Your task to perform on an android device: Search for Italian restaurants on Maps Image 0: 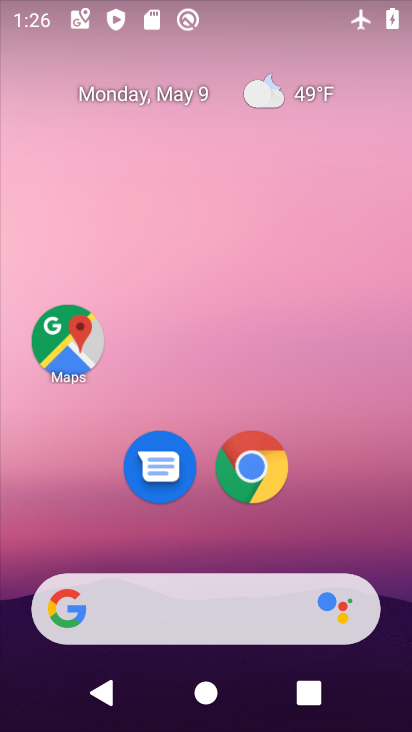
Step 0: drag from (375, 519) to (389, 113)
Your task to perform on an android device: Search for Italian restaurants on Maps Image 1: 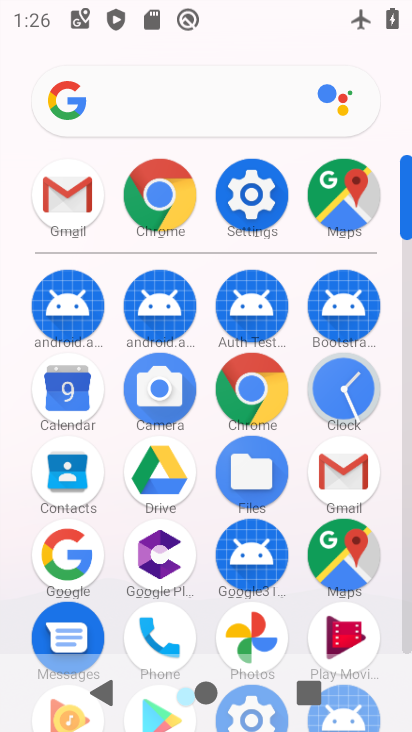
Step 1: click (342, 560)
Your task to perform on an android device: Search for Italian restaurants on Maps Image 2: 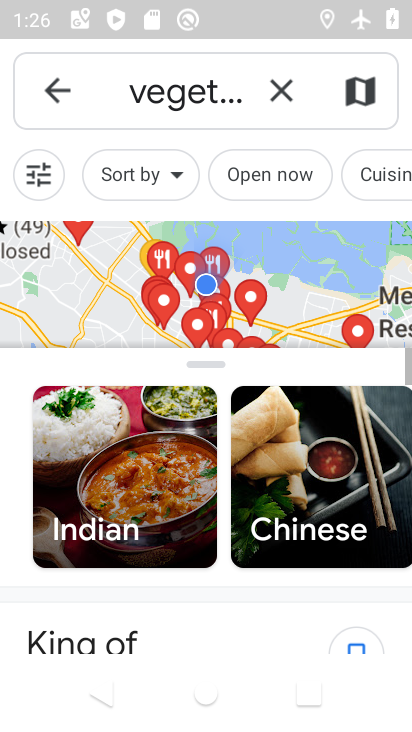
Step 2: click (296, 87)
Your task to perform on an android device: Search for Italian restaurants on Maps Image 3: 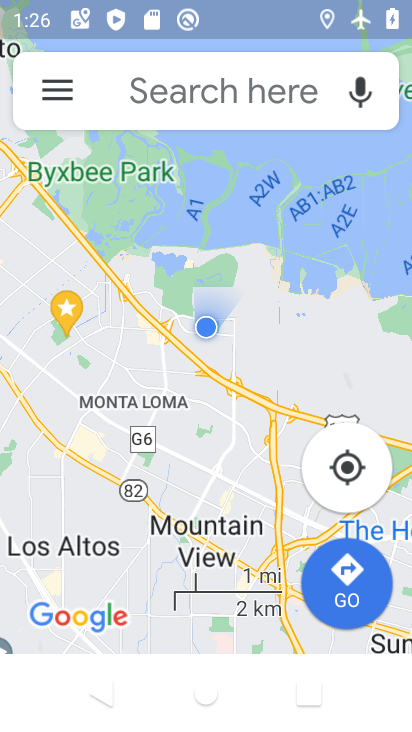
Step 3: click (212, 105)
Your task to perform on an android device: Search for Italian restaurants on Maps Image 4: 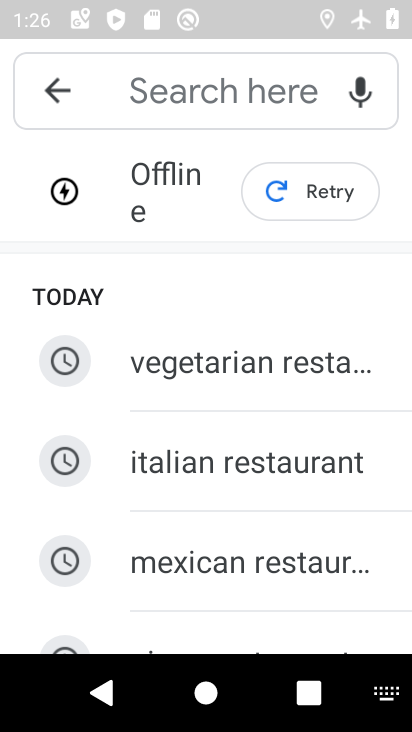
Step 4: click (188, 467)
Your task to perform on an android device: Search for Italian restaurants on Maps Image 5: 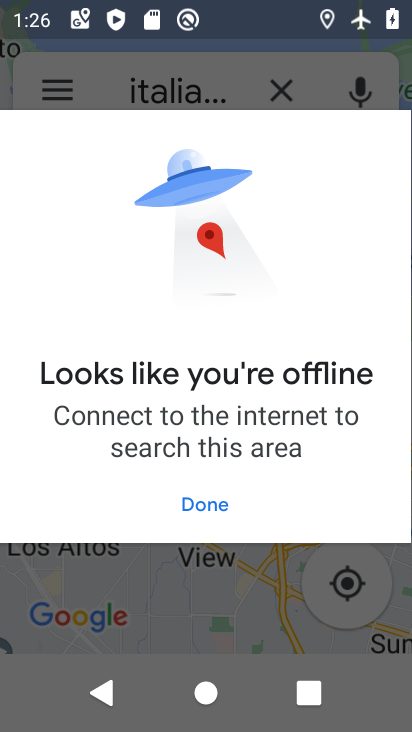
Step 5: click (211, 499)
Your task to perform on an android device: Search for Italian restaurants on Maps Image 6: 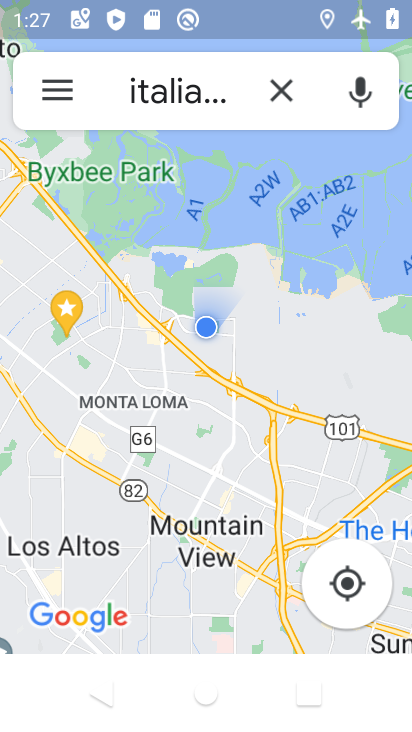
Step 6: click (253, 96)
Your task to perform on an android device: Search for Italian restaurants on Maps Image 7: 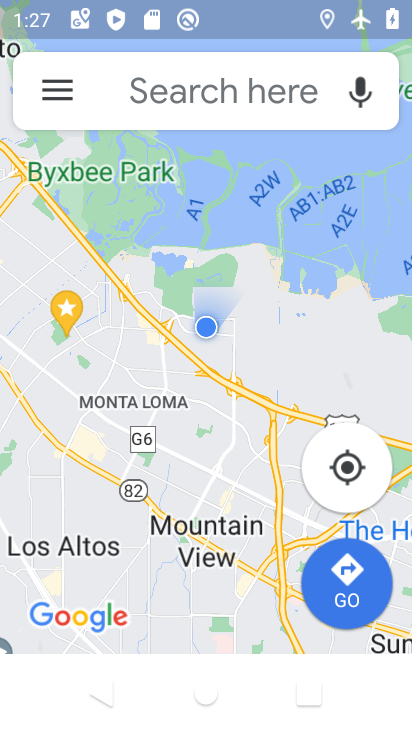
Step 7: type "italian restaurantd"
Your task to perform on an android device: Search for Italian restaurants on Maps Image 8: 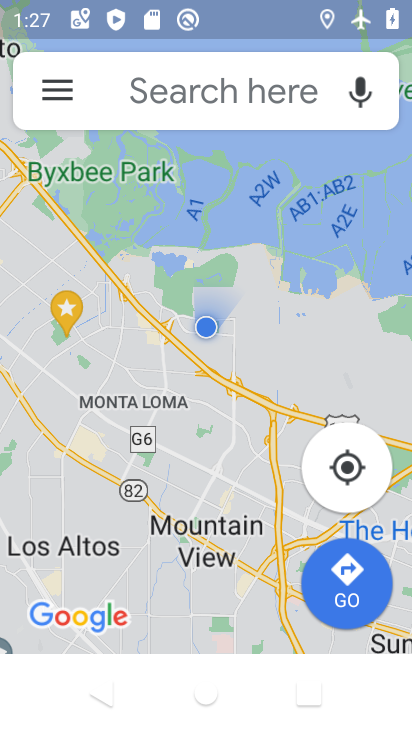
Step 8: click (233, 96)
Your task to perform on an android device: Search for Italian restaurants on Maps Image 9: 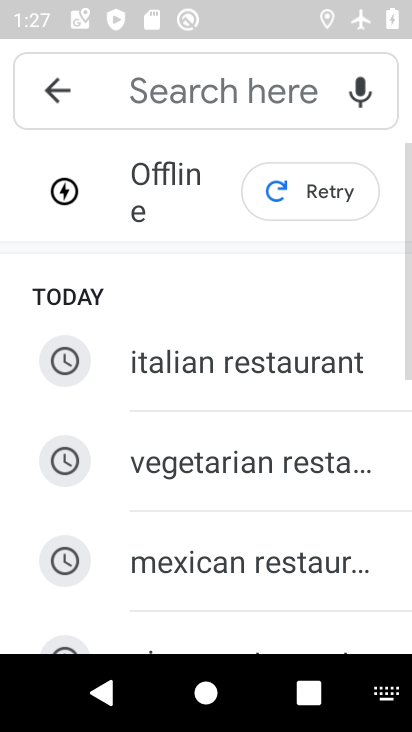
Step 9: click (268, 377)
Your task to perform on an android device: Search for Italian restaurants on Maps Image 10: 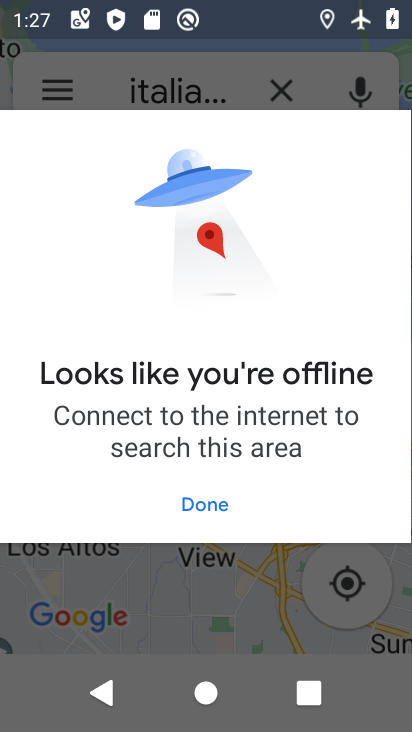
Step 10: task complete